Your task to perform on an android device: delete a single message in the gmail app Image 0: 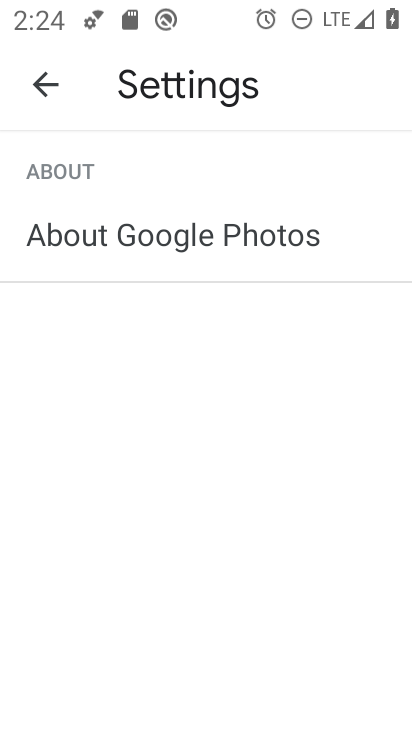
Step 0: press home button
Your task to perform on an android device: delete a single message in the gmail app Image 1: 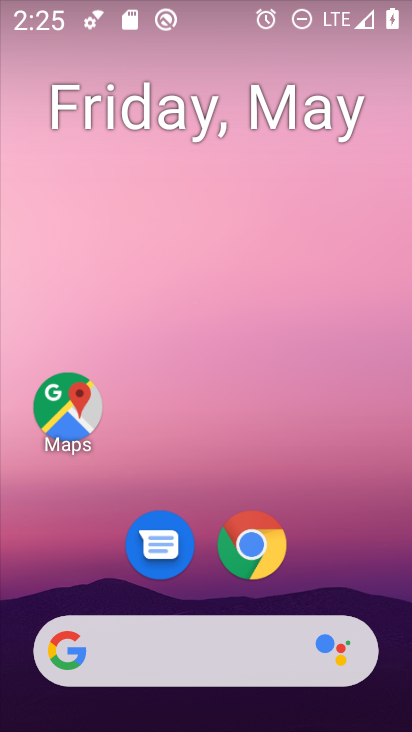
Step 1: drag from (309, 565) to (349, 282)
Your task to perform on an android device: delete a single message in the gmail app Image 2: 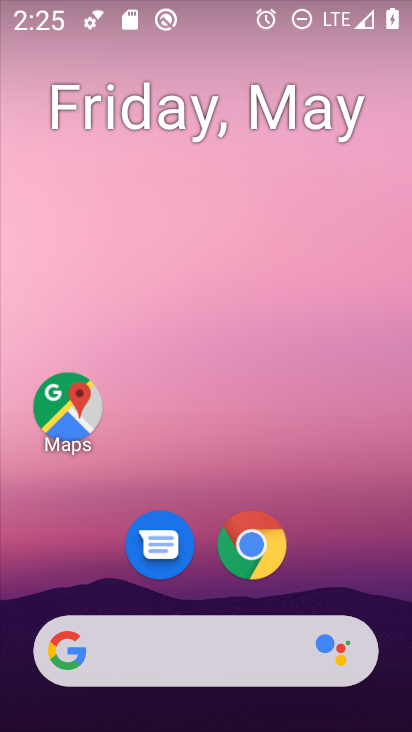
Step 2: click (326, 256)
Your task to perform on an android device: delete a single message in the gmail app Image 3: 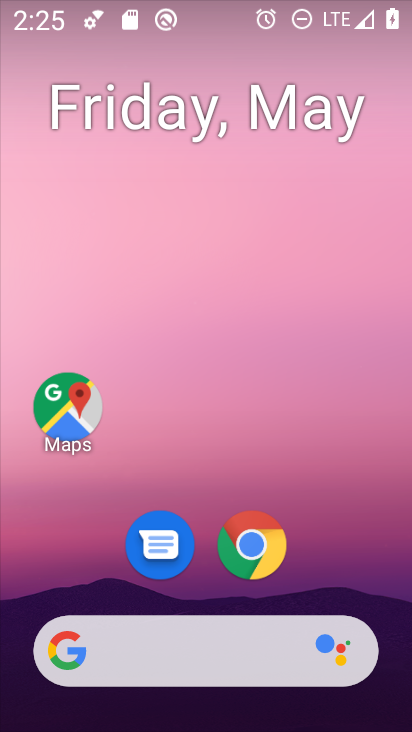
Step 3: drag from (265, 574) to (289, 221)
Your task to perform on an android device: delete a single message in the gmail app Image 4: 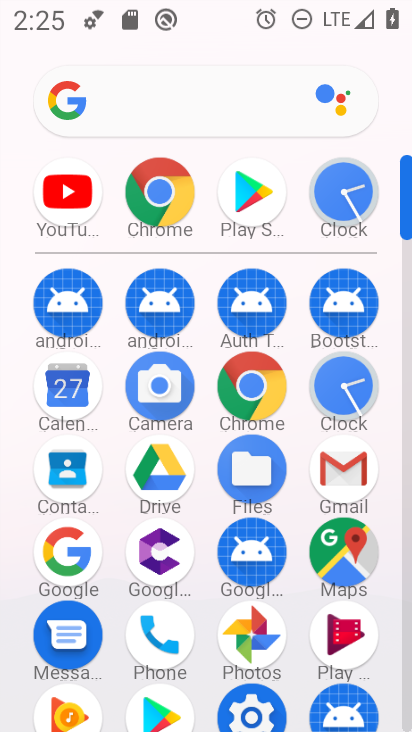
Step 4: click (336, 475)
Your task to perform on an android device: delete a single message in the gmail app Image 5: 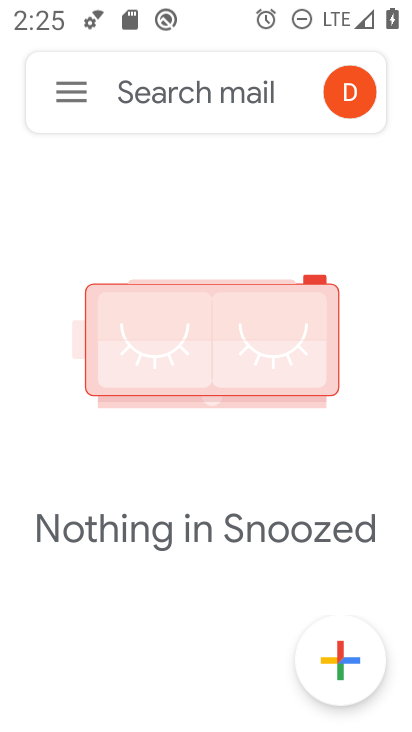
Step 5: click (70, 91)
Your task to perform on an android device: delete a single message in the gmail app Image 6: 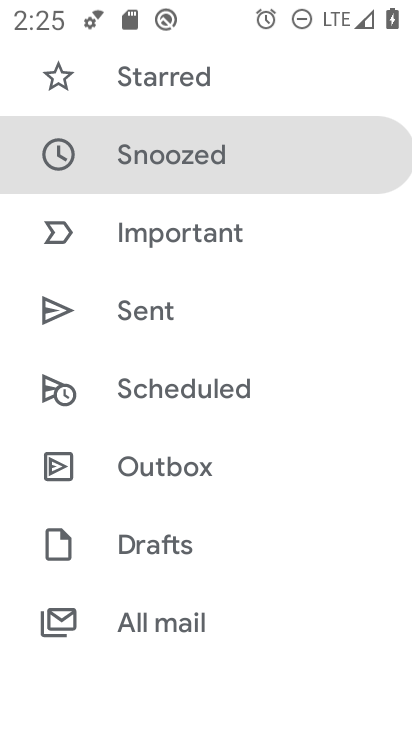
Step 6: click (188, 615)
Your task to perform on an android device: delete a single message in the gmail app Image 7: 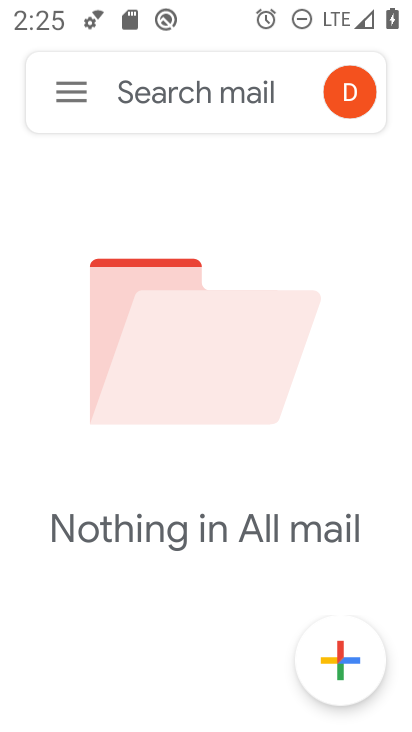
Step 7: task complete